Your task to perform on an android device: Open Chrome and go to settings Image 0: 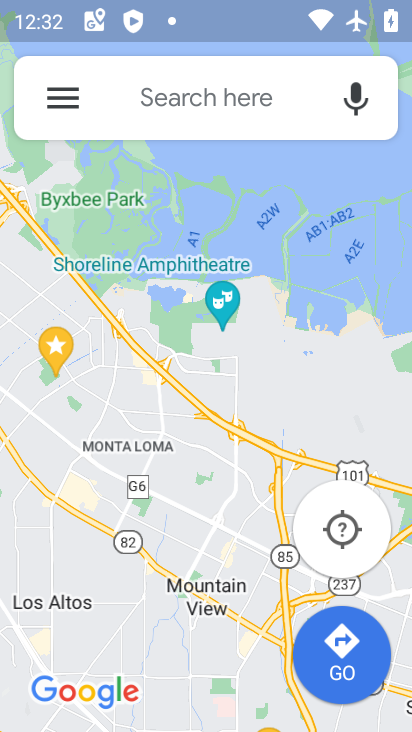
Step 0: press home button
Your task to perform on an android device: Open Chrome and go to settings Image 1: 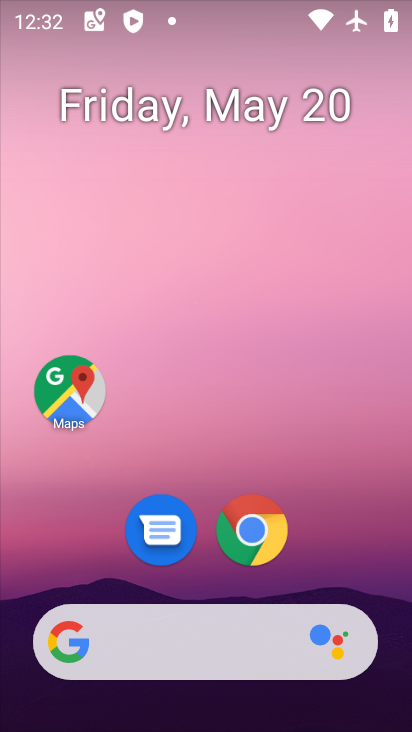
Step 1: click (258, 520)
Your task to perform on an android device: Open Chrome and go to settings Image 2: 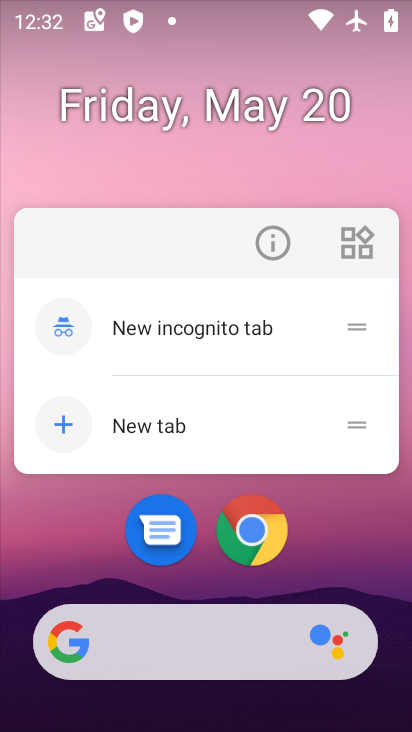
Step 2: click (257, 520)
Your task to perform on an android device: Open Chrome and go to settings Image 3: 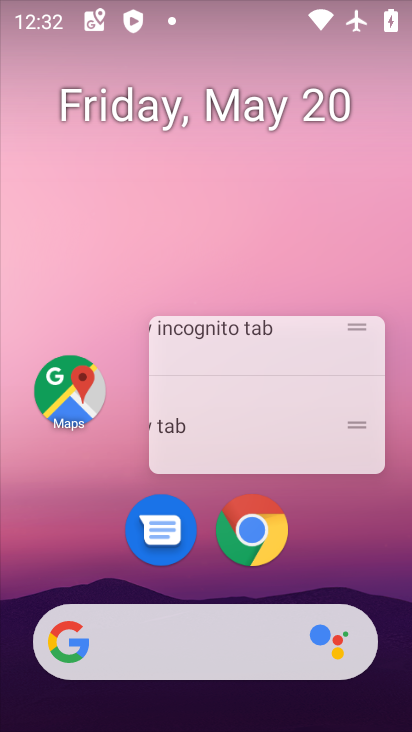
Step 3: click (257, 520)
Your task to perform on an android device: Open Chrome and go to settings Image 4: 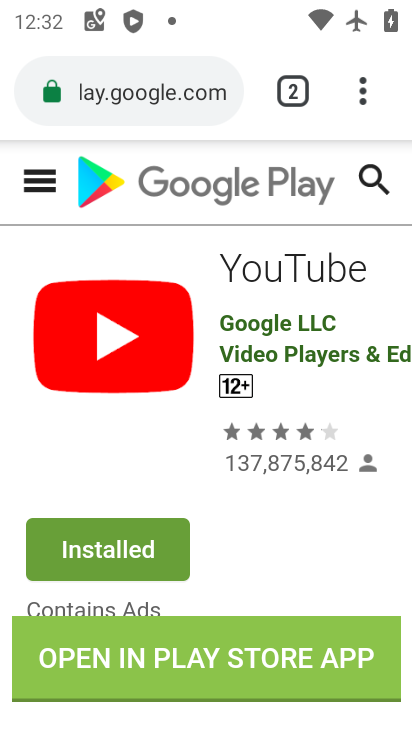
Step 4: click (362, 96)
Your task to perform on an android device: Open Chrome and go to settings Image 5: 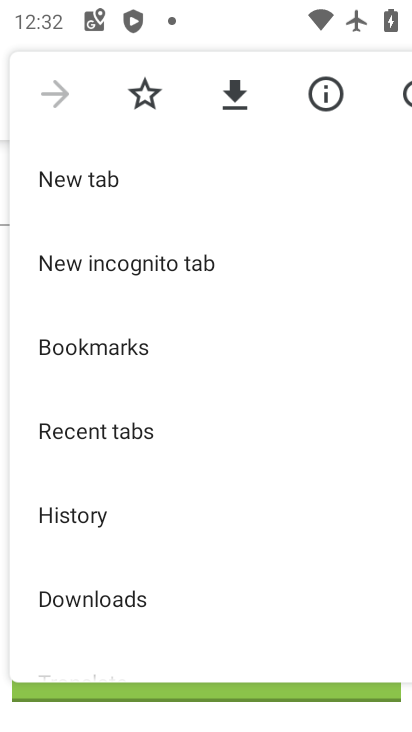
Step 5: drag from (218, 629) to (247, 6)
Your task to perform on an android device: Open Chrome and go to settings Image 6: 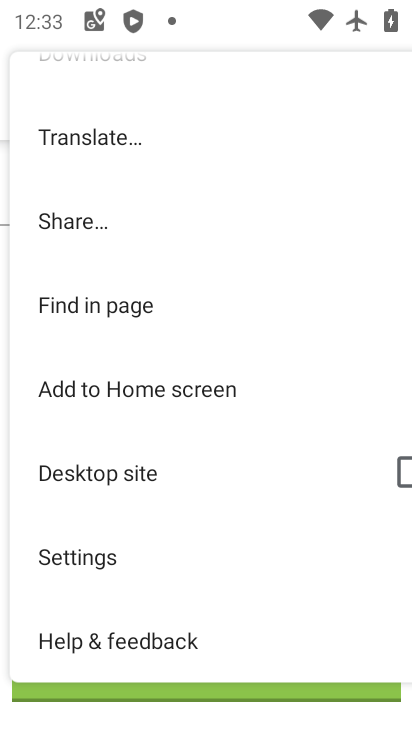
Step 6: click (124, 561)
Your task to perform on an android device: Open Chrome and go to settings Image 7: 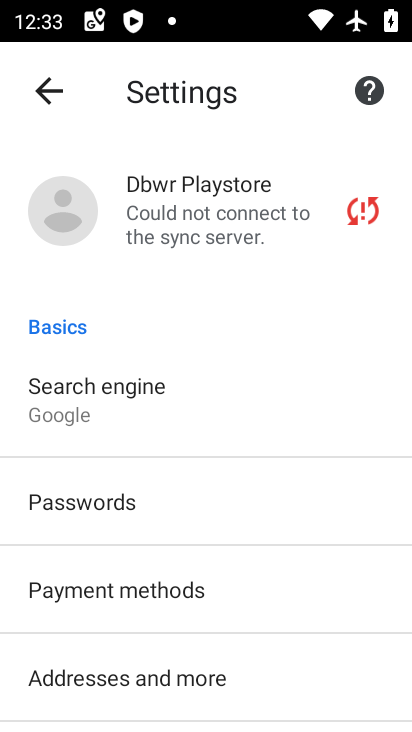
Step 7: task complete